Your task to perform on an android device: turn off priority inbox in the gmail app Image 0: 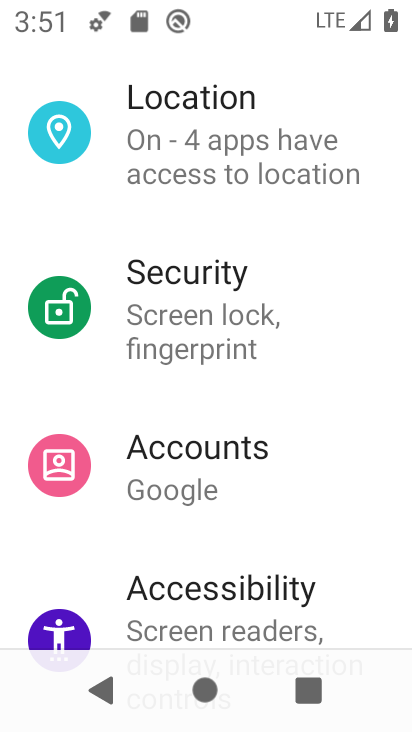
Step 0: press home button
Your task to perform on an android device: turn off priority inbox in the gmail app Image 1: 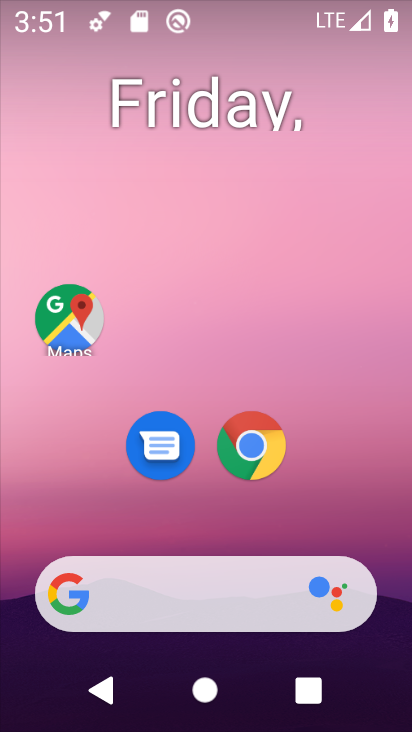
Step 1: drag from (324, 452) to (263, 41)
Your task to perform on an android device: turn off priority inbox in the gmail app Image 2: 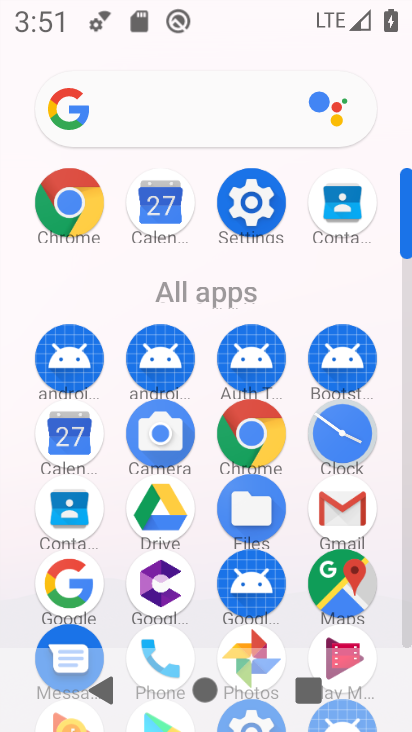
Step 2: click (332, 492)
Your task to perform on an android device: turn off priority inbox in the gmail app Image 3: 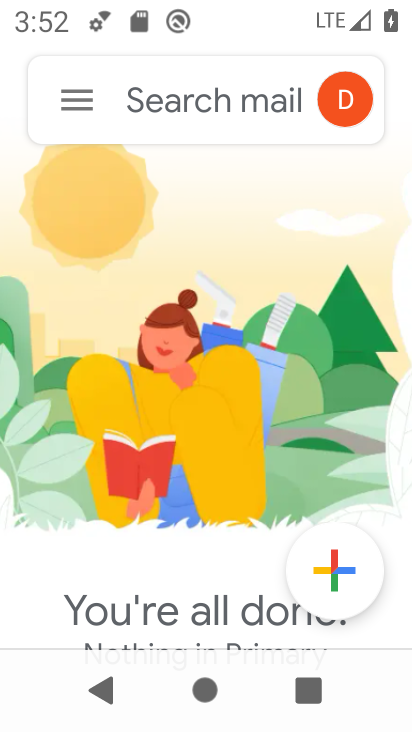
Step 3: click (75, 102)
Your task to perform on an android device: turn off priority inbox in the gmail app Image 4: 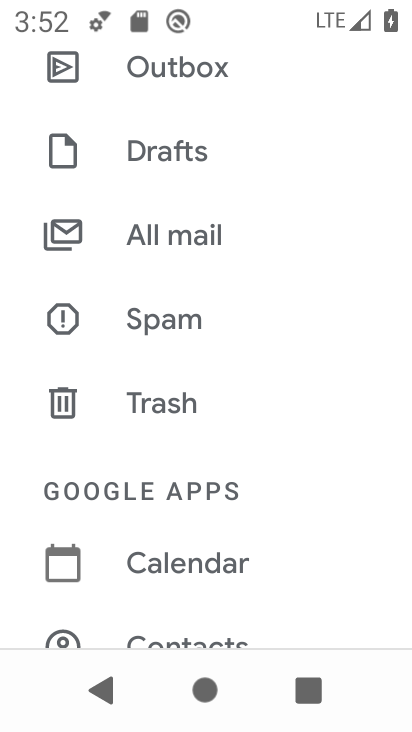
Step 4: drag from (213, 610) to (164, 271)
Your task to perform on an android device: turn off priority inbox in the gmail app Image 5: 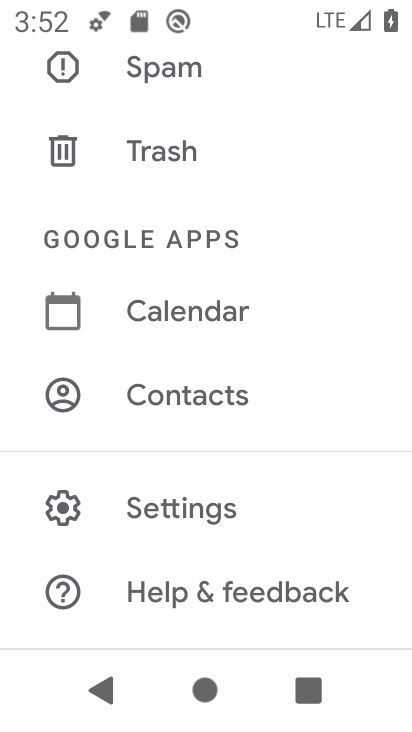
Step 5: click (223, 525)
Your task to perform on an android device: turn off priority inbox in the gmail app Image 6: 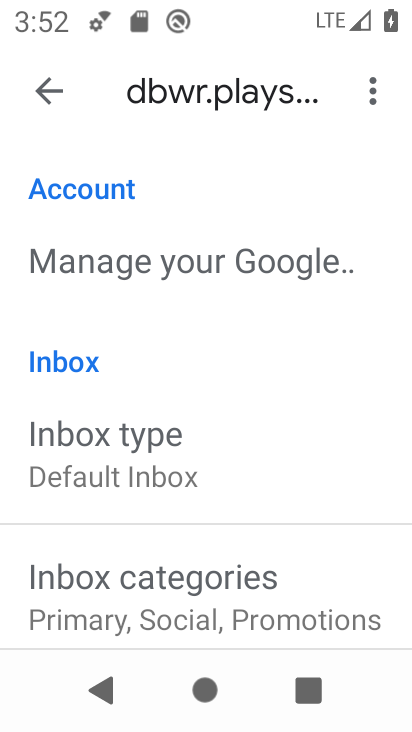
Step 6: click (203, 479)
Your task to perform on an android device: turn off priority inbox in the gmail app Image 7: 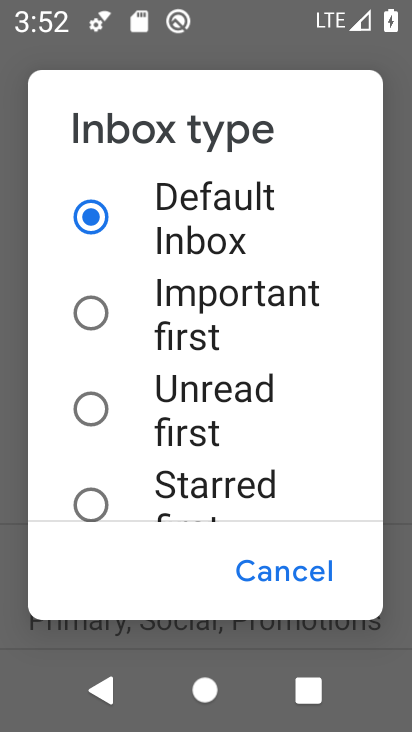
Step 7: task complete